Your task to perform on an android device: Is it going to rain this weekend? Image 0: 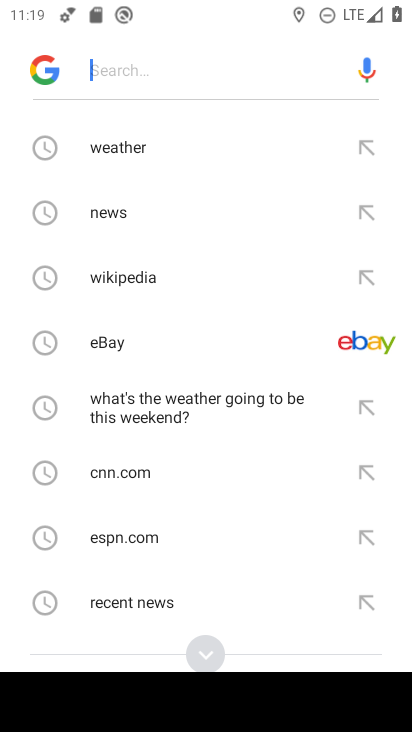
Step 0: click (192, 150)
Your task to perform on an android device: Is it going to rain this weekend? Image 1: 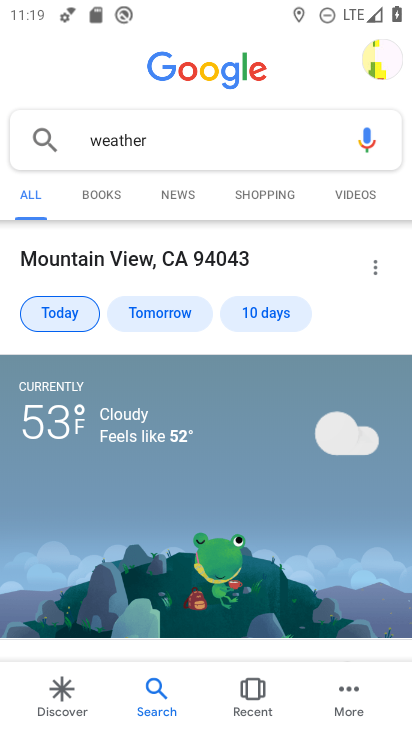
Step 1: click (286, 321)
Your task to perform on an android device: Is it going to rain this weekend? Image 2: 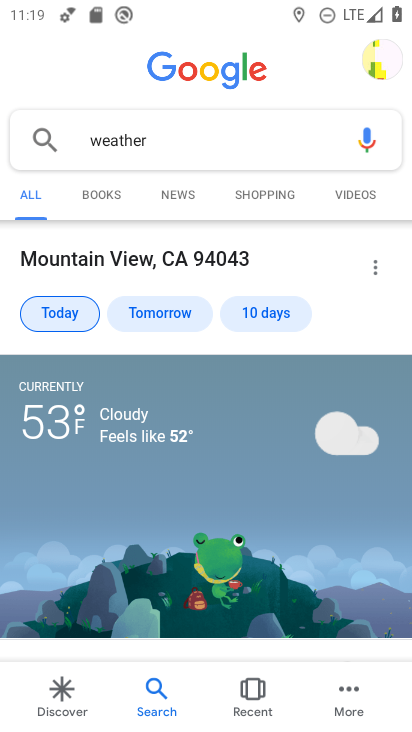
Step 2: click (286, 321)
Your task to perform on an android device: Is it going to rain this weekend? Image 3: 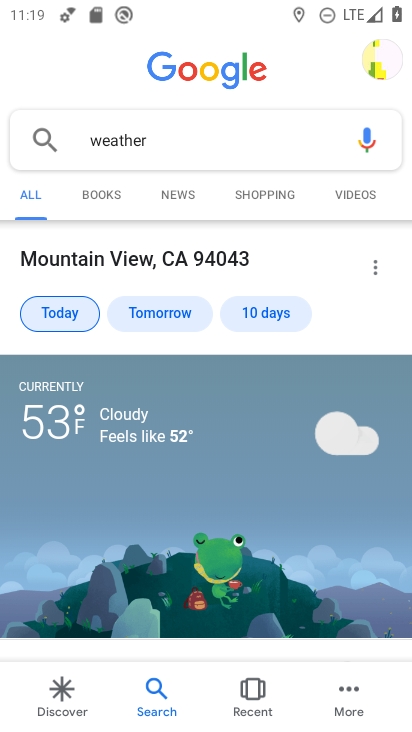
Step 3: drag from (110, 546) to (117, 44)
Your task to perform on an android device: Is it going to rain this weekend? Image 4: 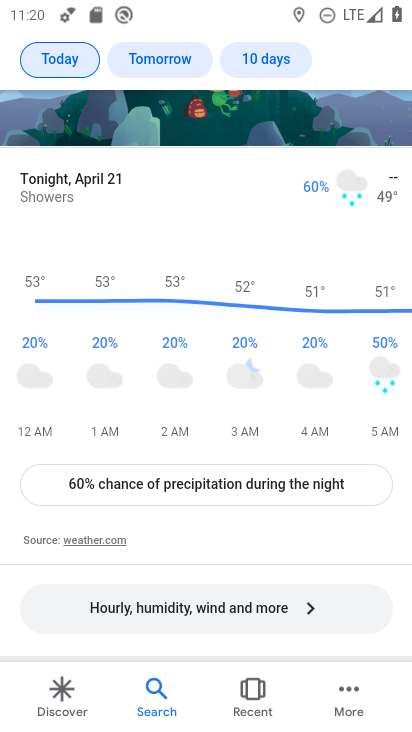
Step 4: drag from (145, 531) to (45, 24)
Your task to perform on an android device: Is it going to rain this weekend? Image 5: 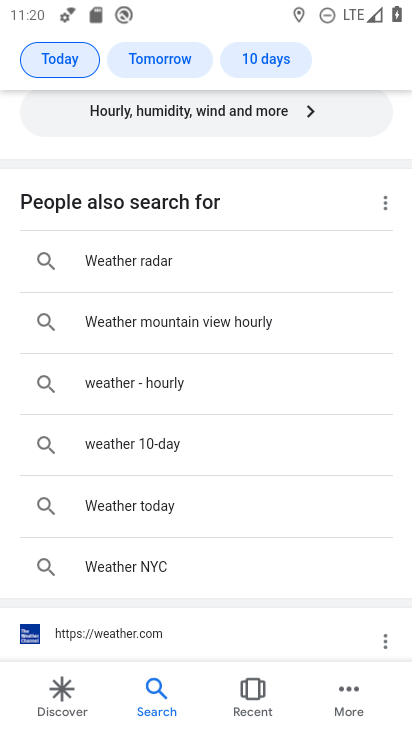
Step 5: click (125, 443)
Your task to perform on an android device: Is it going to rain this weekend? Image 6: 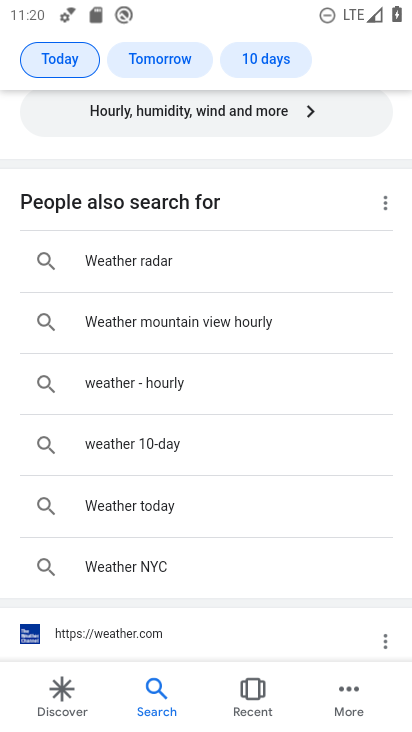
Step 6: click (160, 440)
Your task to perform on an android device: Is it going to rain this weekend? Image 7: 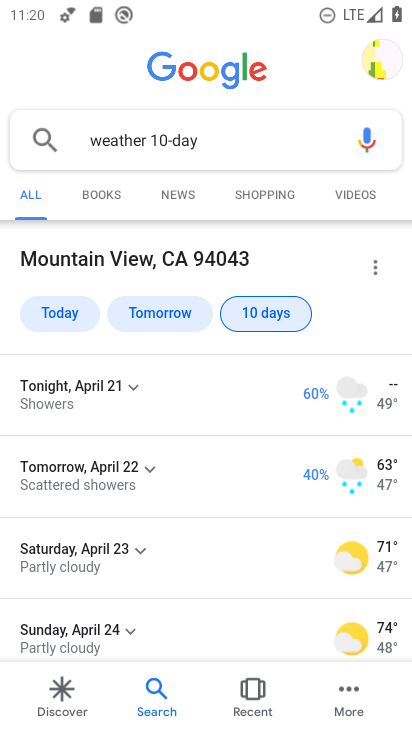
Step 7: task complete